Your task to perform on an android device: toggle translation in the chrome app Image 0: 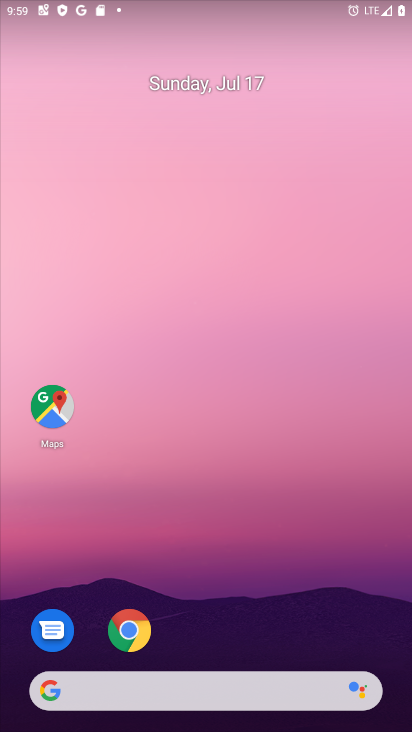
Step 0: press home button
Your task to perform on an android device: toggle translation in the chrome app Image 1: 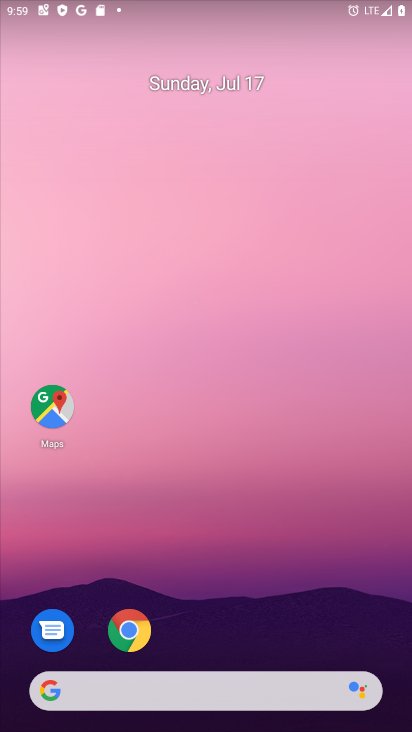
Step 1: click (124, 625)
Your task to perform on an android device: toggle translation in the chrome app Image 2: 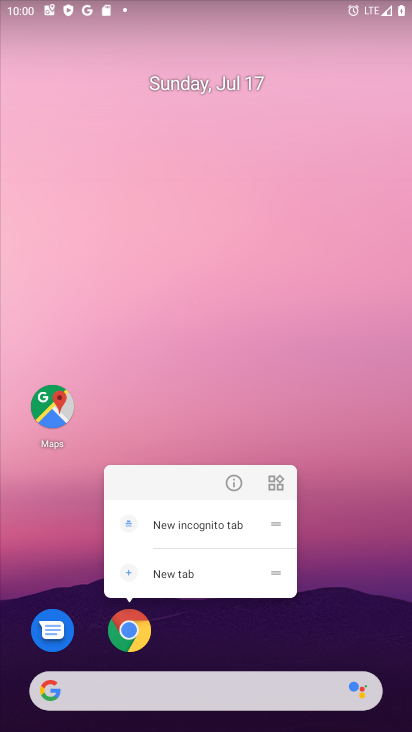
Step 2: click (128, 624)
Your task to perform on an android device: toggle translation in the chrome app Image 3: 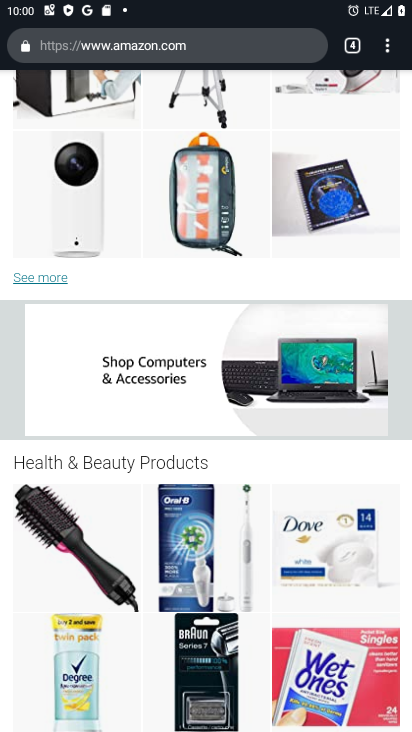
Step 3: click (390, 45)
Your task to perform on an android device: toggle translation in the chrome app Image 4: 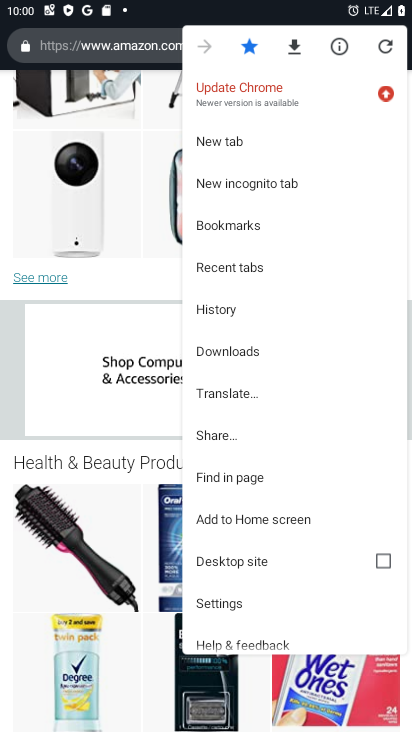
Step 4: click (241, 598)
Your task to perform on an android device: toggle translation in the chrome app Image 5: 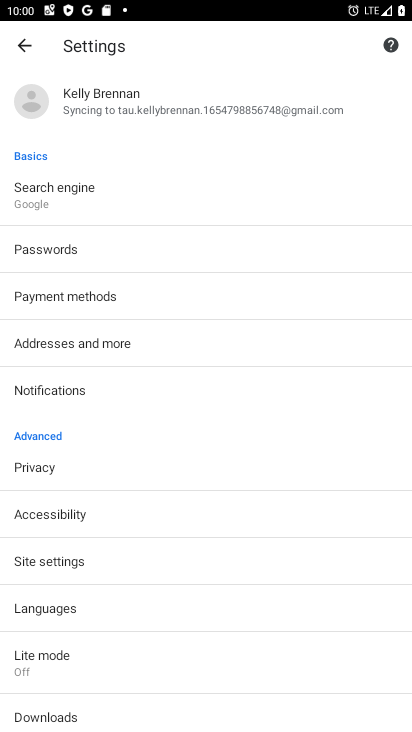
Step 5: click (88, 615)
Your task to perform on an android device: toggle translation in the chrome app Image 6: 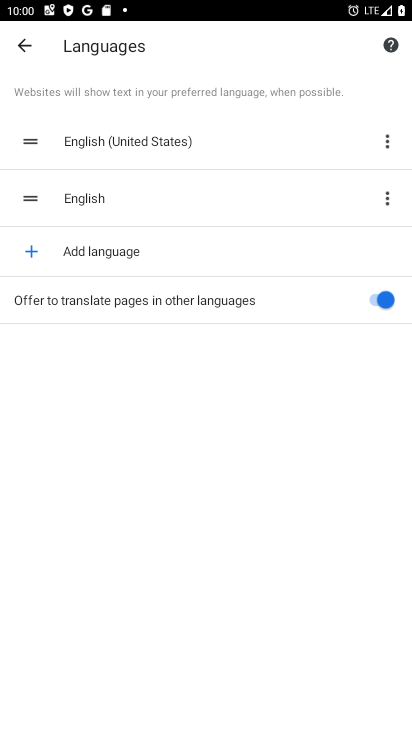
Step 6: click (369, 294)
Your task to perform on an android device: toggle translation in the chrome app Image 7: 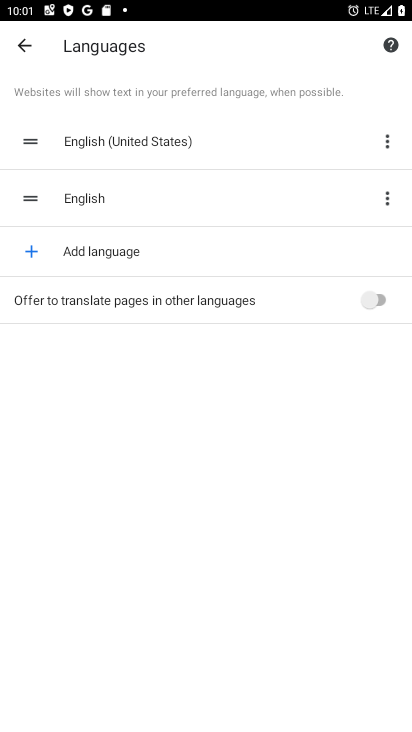
Step 7: task complete